Your task to perform on an android device: Is it going to rain this weekend? Image 0: 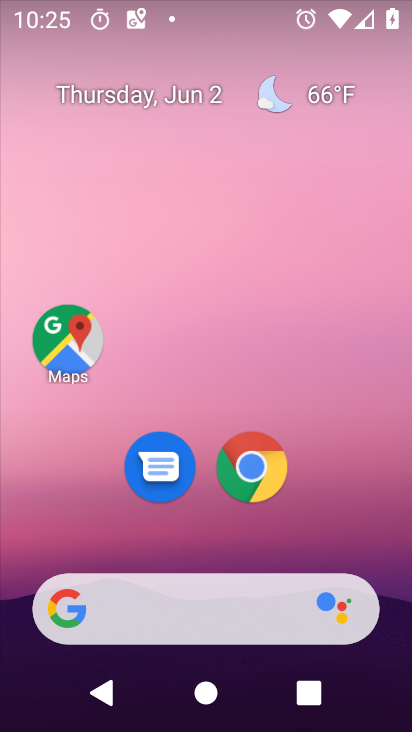
Step 0: press home button
Your task to perform on an android device: Is it going to rain this weekend? Image 1: 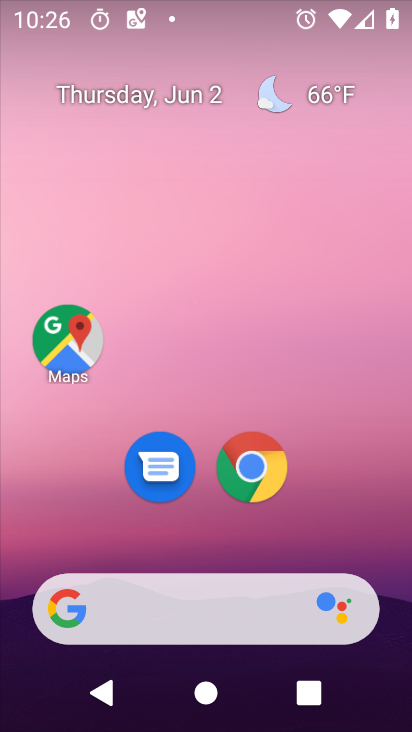
Step 1: click (210, 592)
Your task to perform on an android device: Is it going to rain this weekend? Image 2: 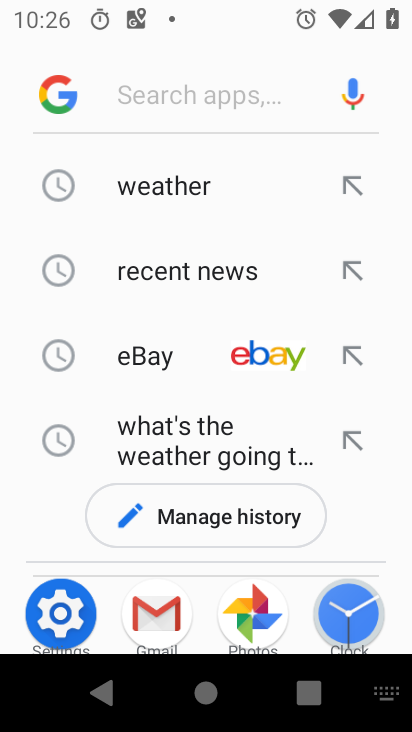
Step 2: click (153, 184)
Your task to perform on an android device: Is it going to rain this weekend? Image 3: 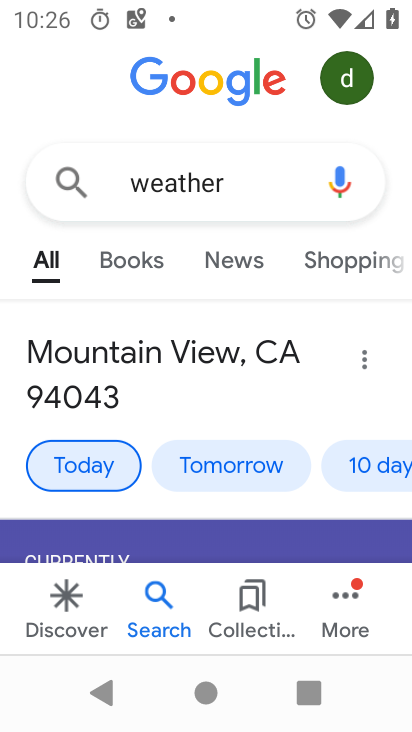
Step 3: task complete